Your task to perform on an android device: manage bookmarks in the chrome app Image 0: 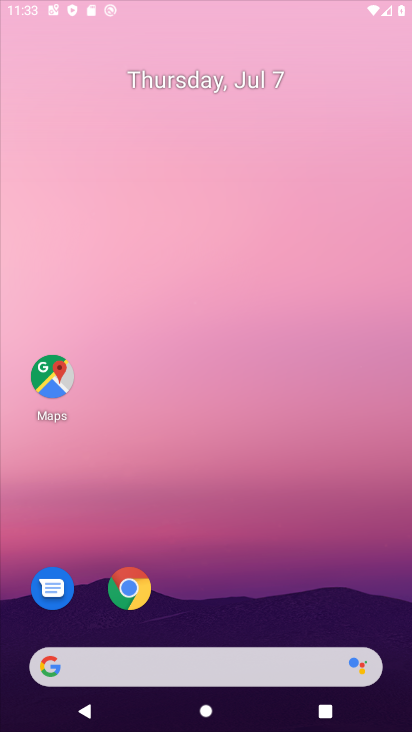
Step 0: drag from (217, 609) to (321, 150)
Your task to perform on an android device: manage bookmarks in the chrome app Image 1: 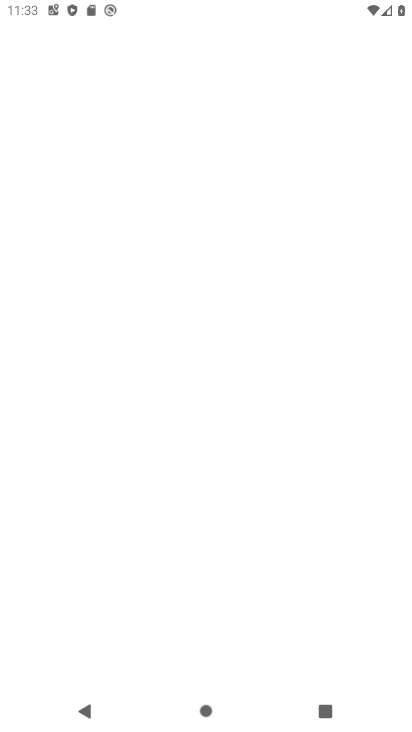
Step 1: press home button
Your task to perform on an android device: manage bookmarks in the chrome app Image 2: 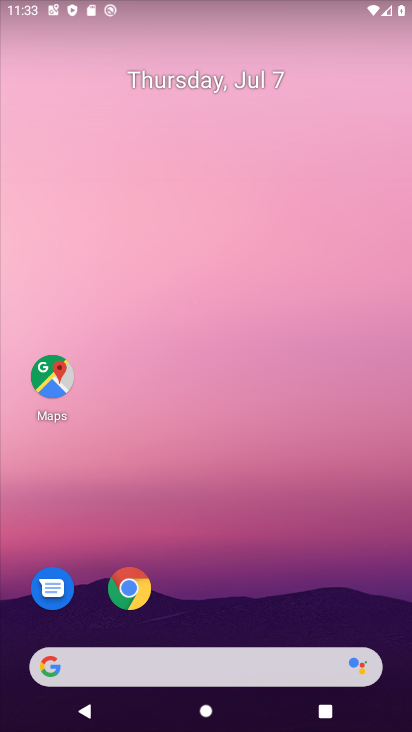
Step 2: drag from (233, 538) to (257, 59)
Your task to perform on an android device: manage bookmarks in the chrome app Image 3: 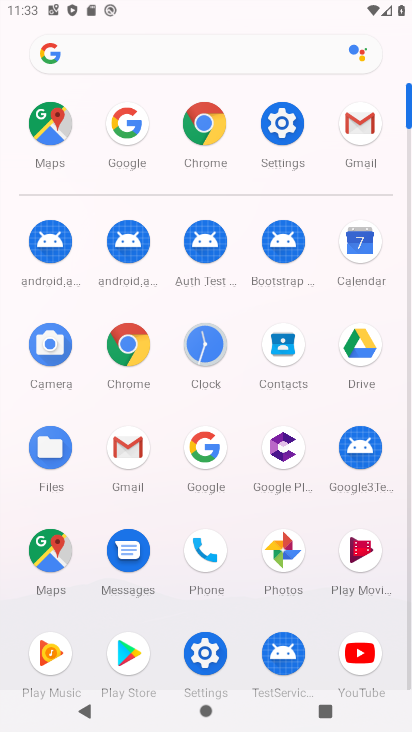
Step 3: click (201, 121)
Your task to perform on an android device: manage bookmarks in the chrome app Image 4: 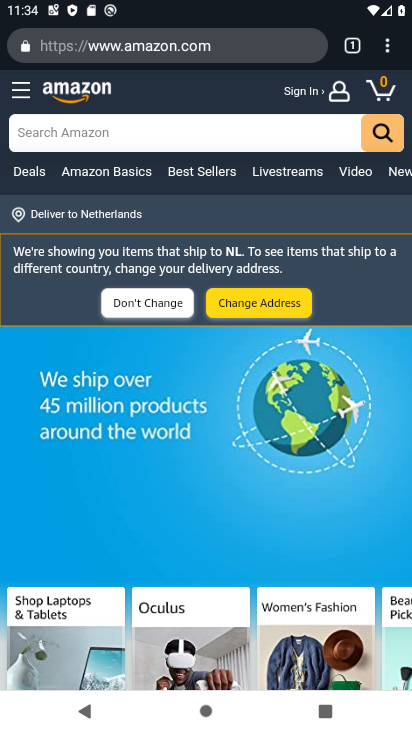
Step 4: click (382, 48)
Your task to perform on an android device: manage bookmarks in the chrome app Image 5: 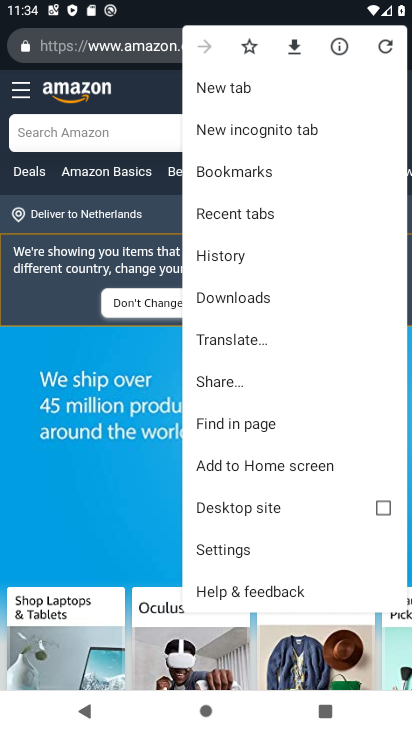
Step 5: click (256, 178)
Your task to perform on an android device: manage bookmarks in the chrome app Image 6: 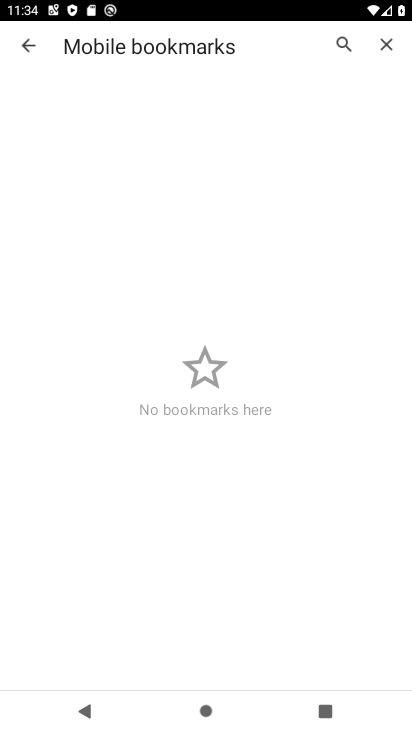
Step 6: task complete